Your task to perform on an android device: Add "razer blackwidow" to the cart on walmart.com, then select checkout. Image 0: 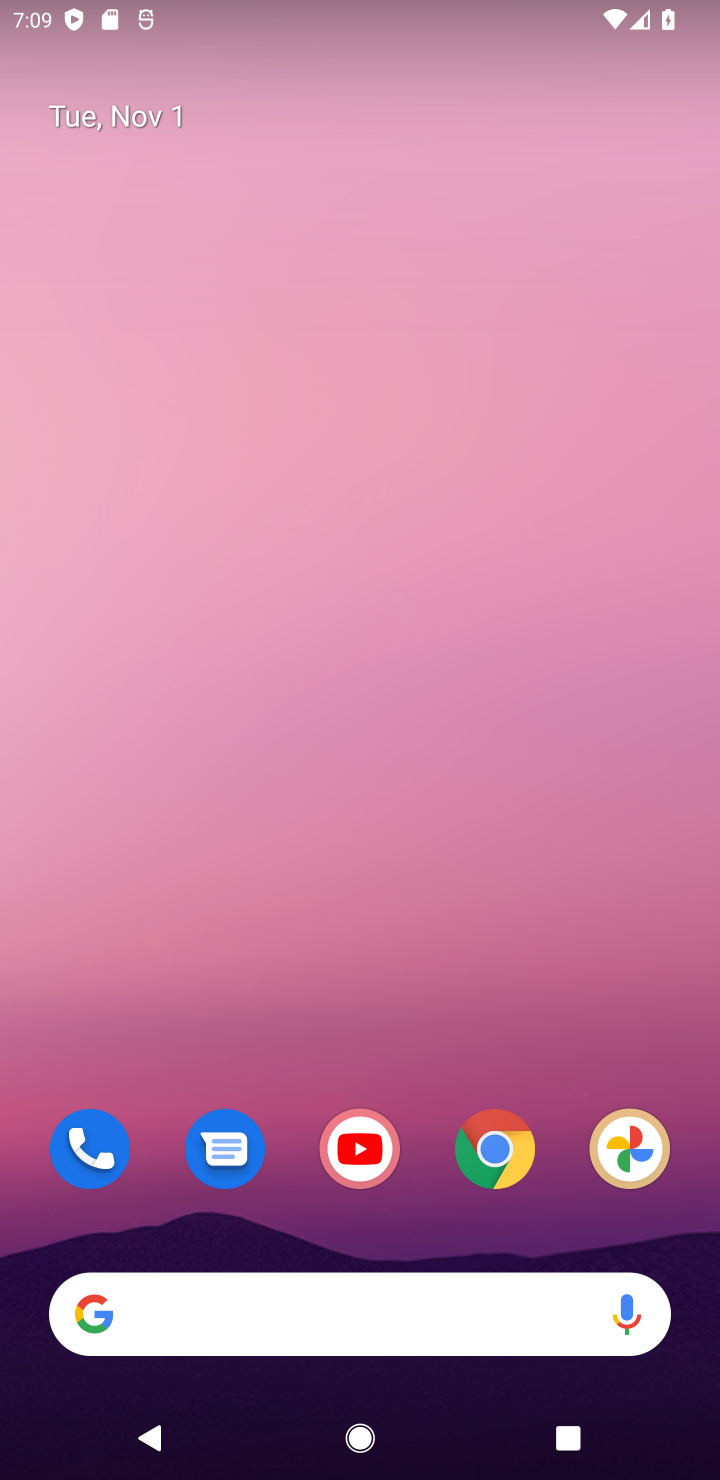
Step 0: drag from (449, 1088) to (474, 102)
Your task to perform on an android device: Add "razer blackwidow" to the cart on walmart.com, then select checkout. Image 1: 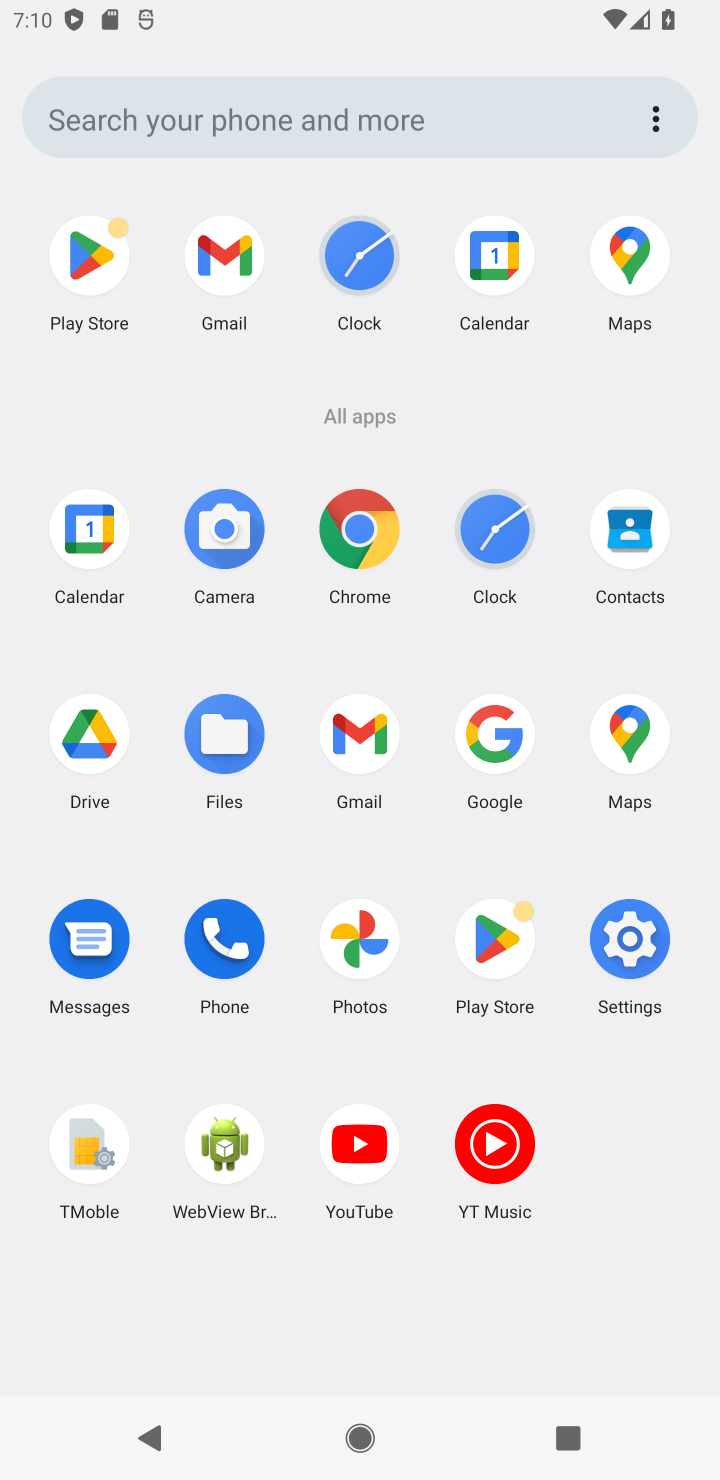
Step 1: click (351, 533)
Your task to perform on an android device: Add "razer blackwidow" to the cart on walmart.com, then select checkout. Image 2: 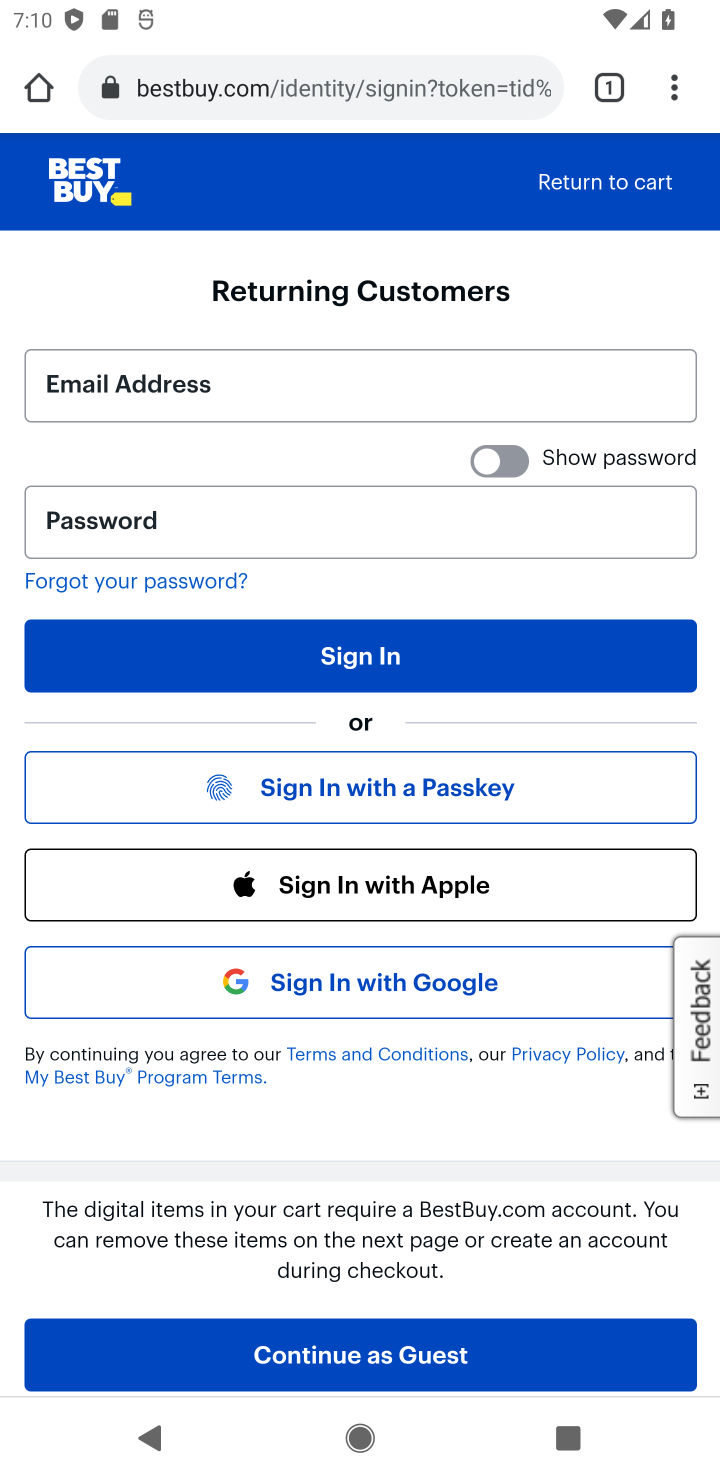
Step 2: click (336, 87)
Your task to perform on an android device: Add "razer blackwidow" to the cart on walmart.com, then select checkout. Image 3: 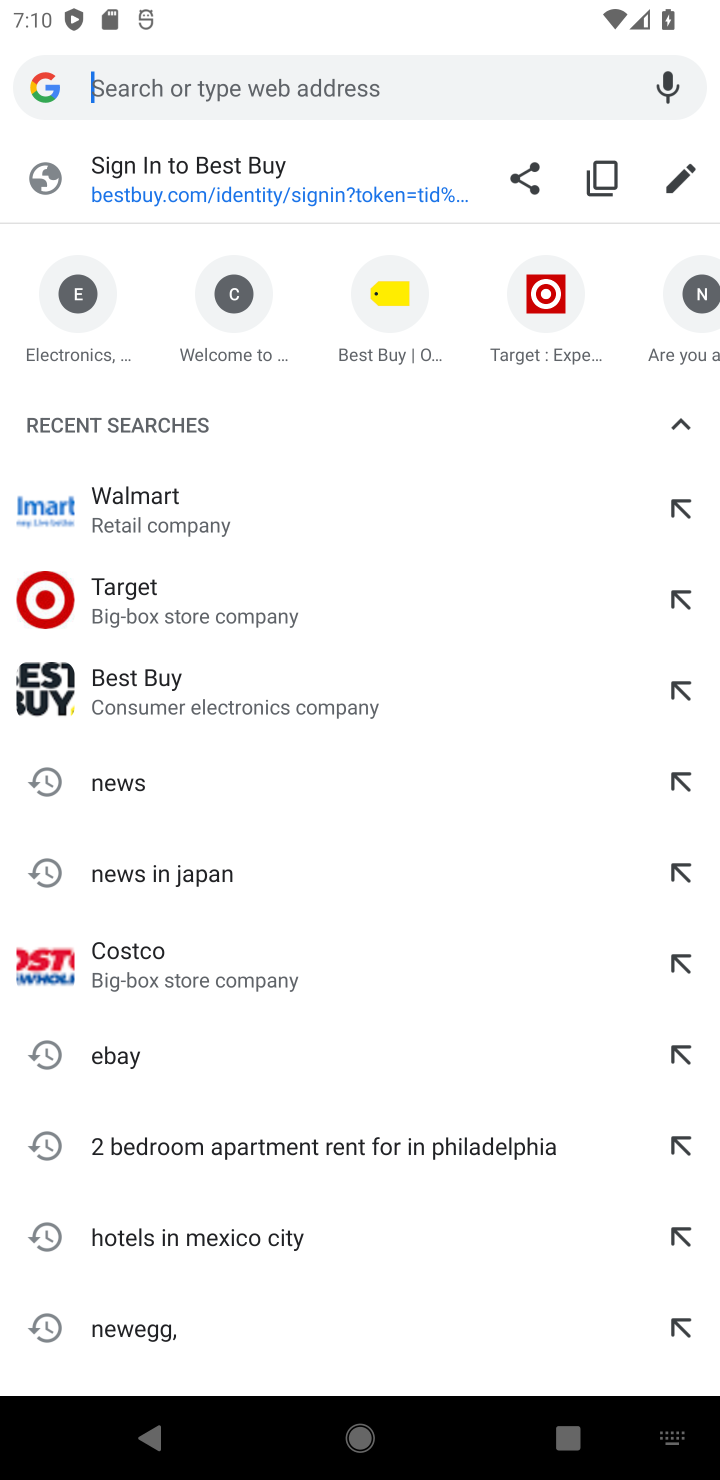
Step 3: type "walmart.com"
Your task to perform on an android device: Add "razer blackwidow" to the cart on walmart.com, then select checkout. Image 4: 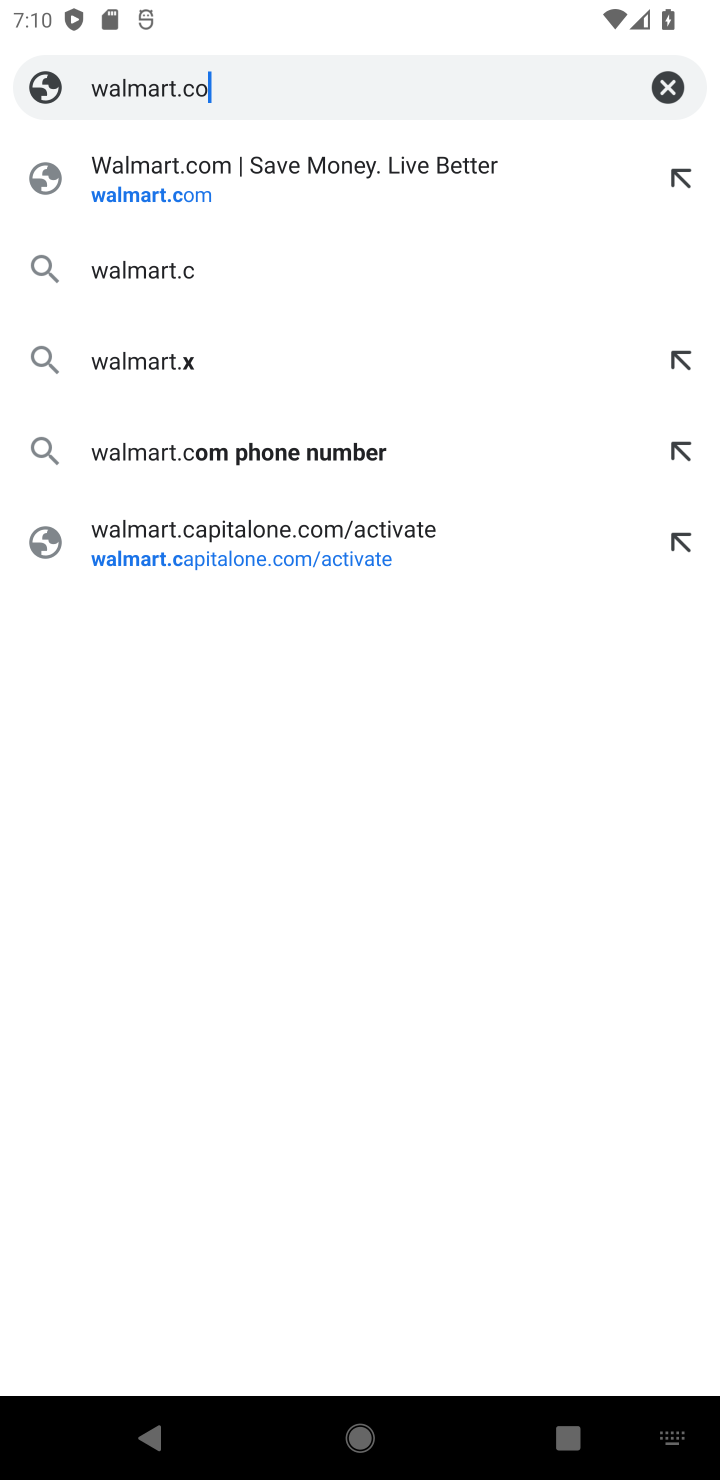
Step 4: press enter
Your task to perform on an android device: Add "razer blackwidow" to the cart on walmart.com, then select checkout. Image 5: 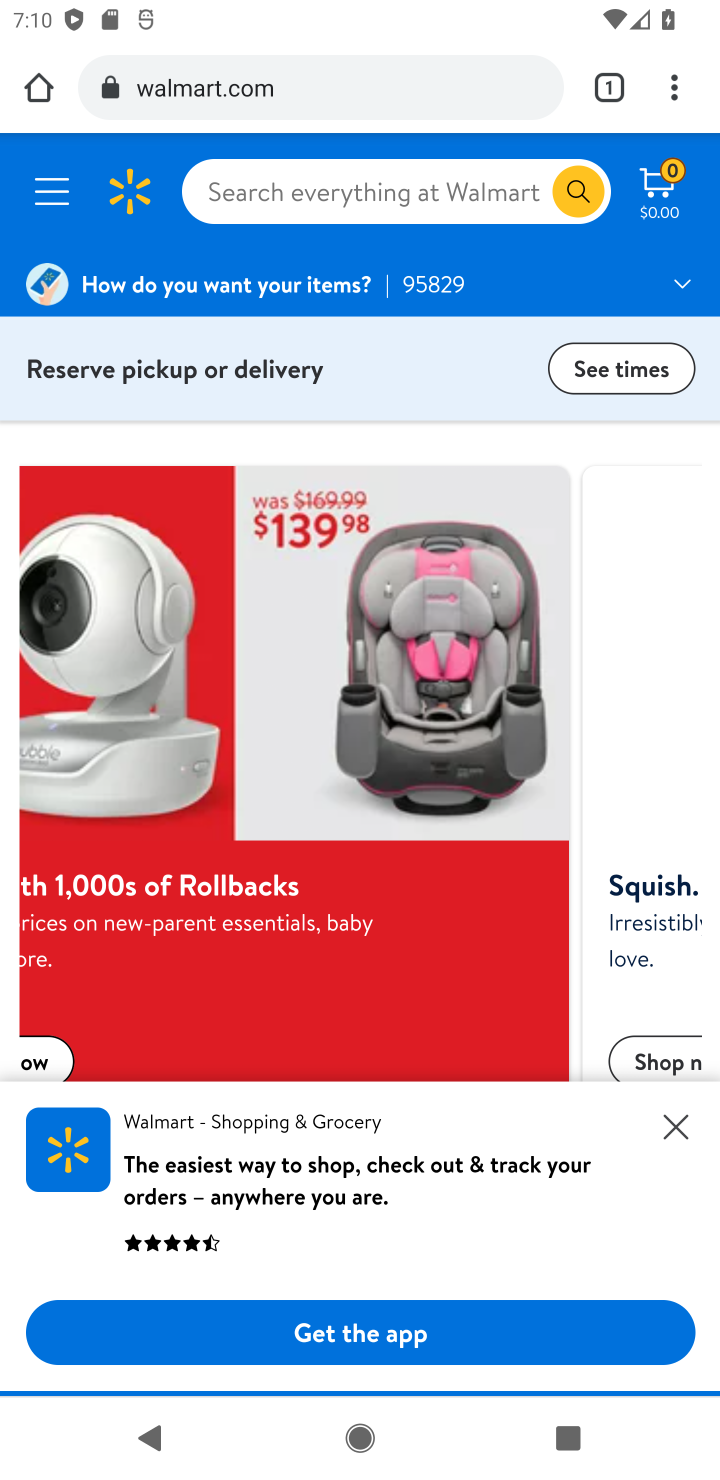
Step 5: click (375, 192)
Your task to perform on an android device: Add "razer blackwidow" to the cart on walmart.com, then select checkout. Image 6: 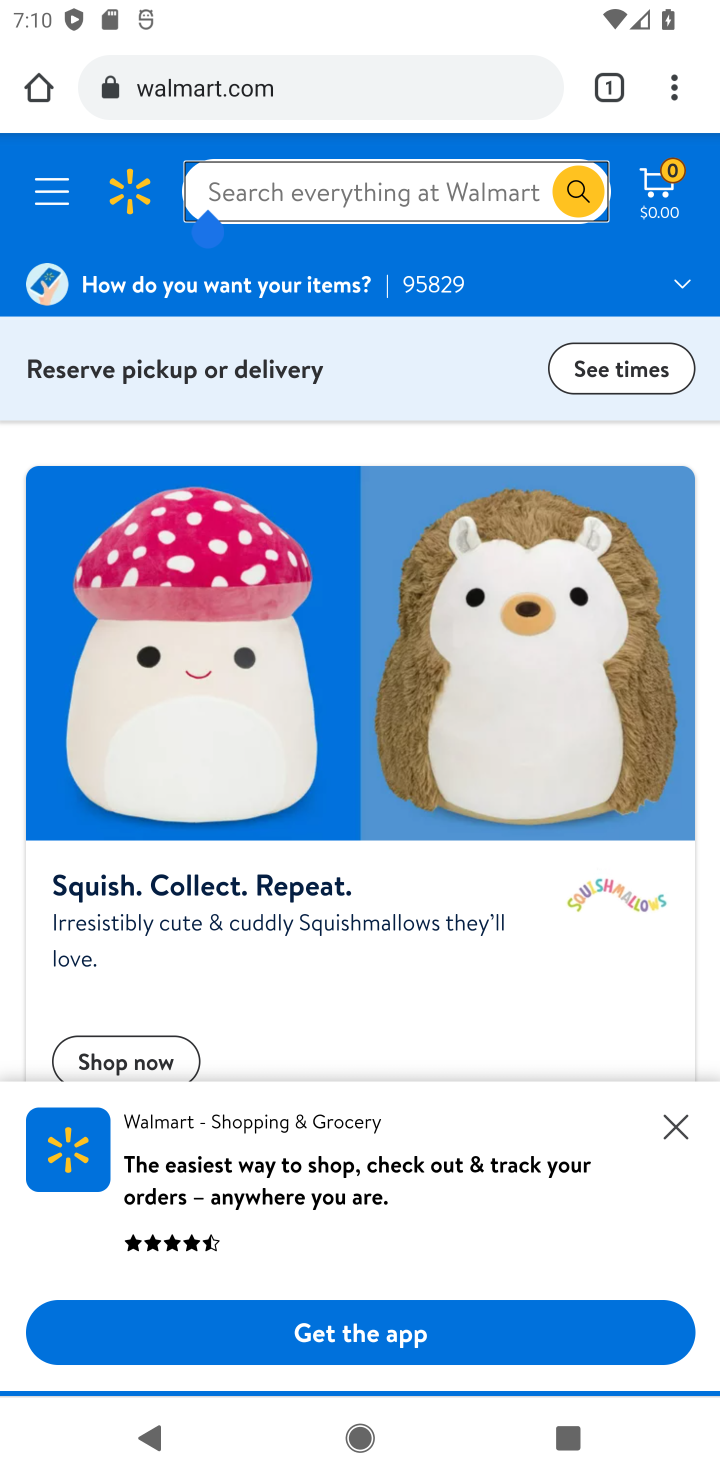
Step 6: type "razer blackwidow"
Your task to perform on an android device: Add "razer blackwidow" to the cart on walmart.com, then select checkout. Image 7: 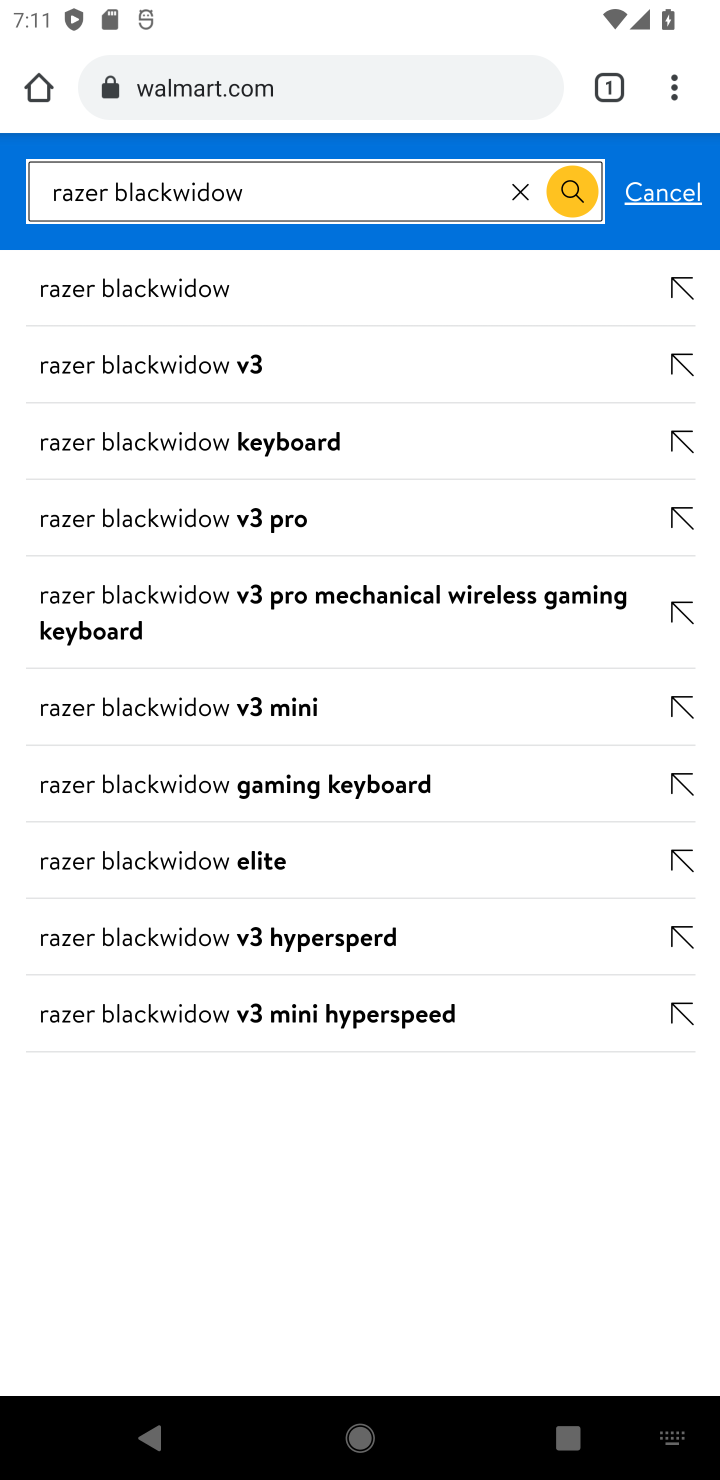
Step 7: press enter
Your task to perform on an android device: Add "razer blackwidow" to the cart on walmart.com, then select checkout. Image 8: 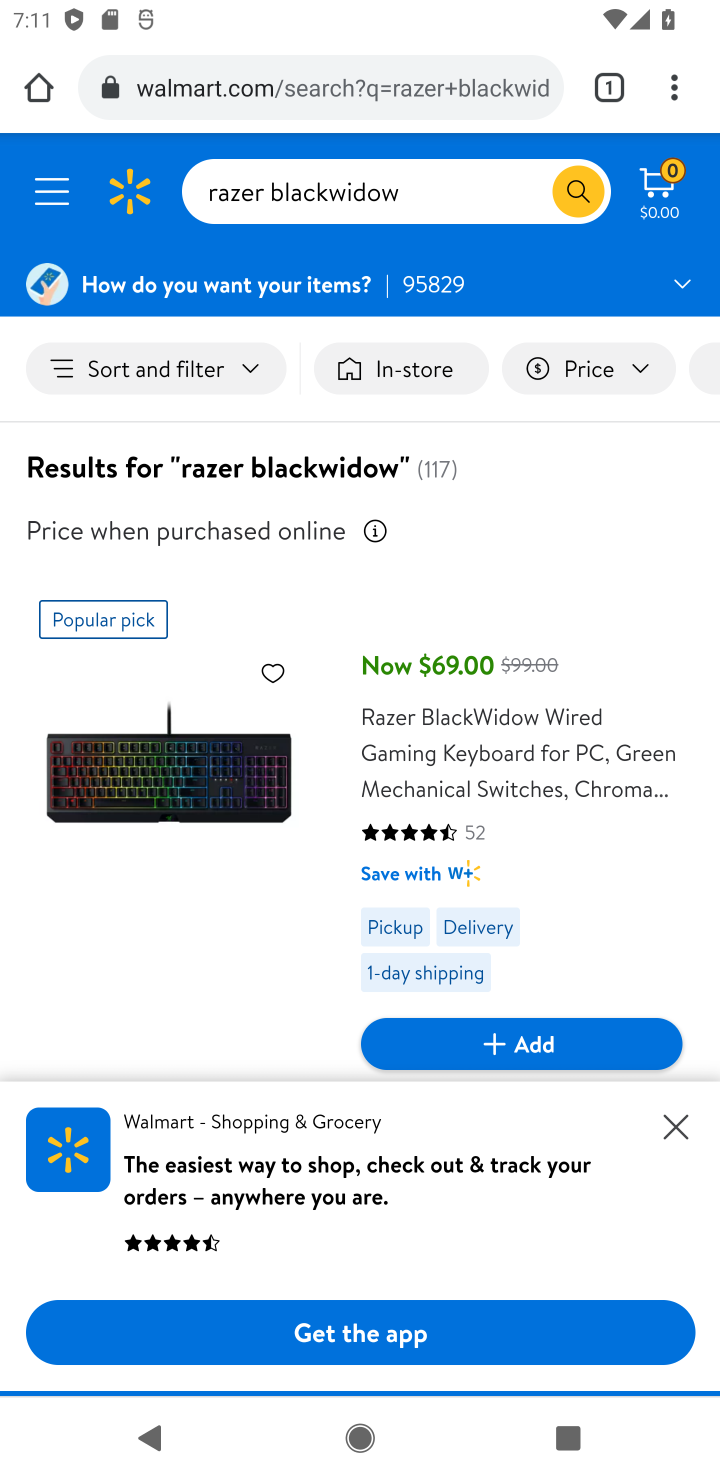
Step 8: click (578, 1064)
Your task to perform on an android device: Add "razer blackwidow" to the cart on walmart.com, then select checkout. Image 9: 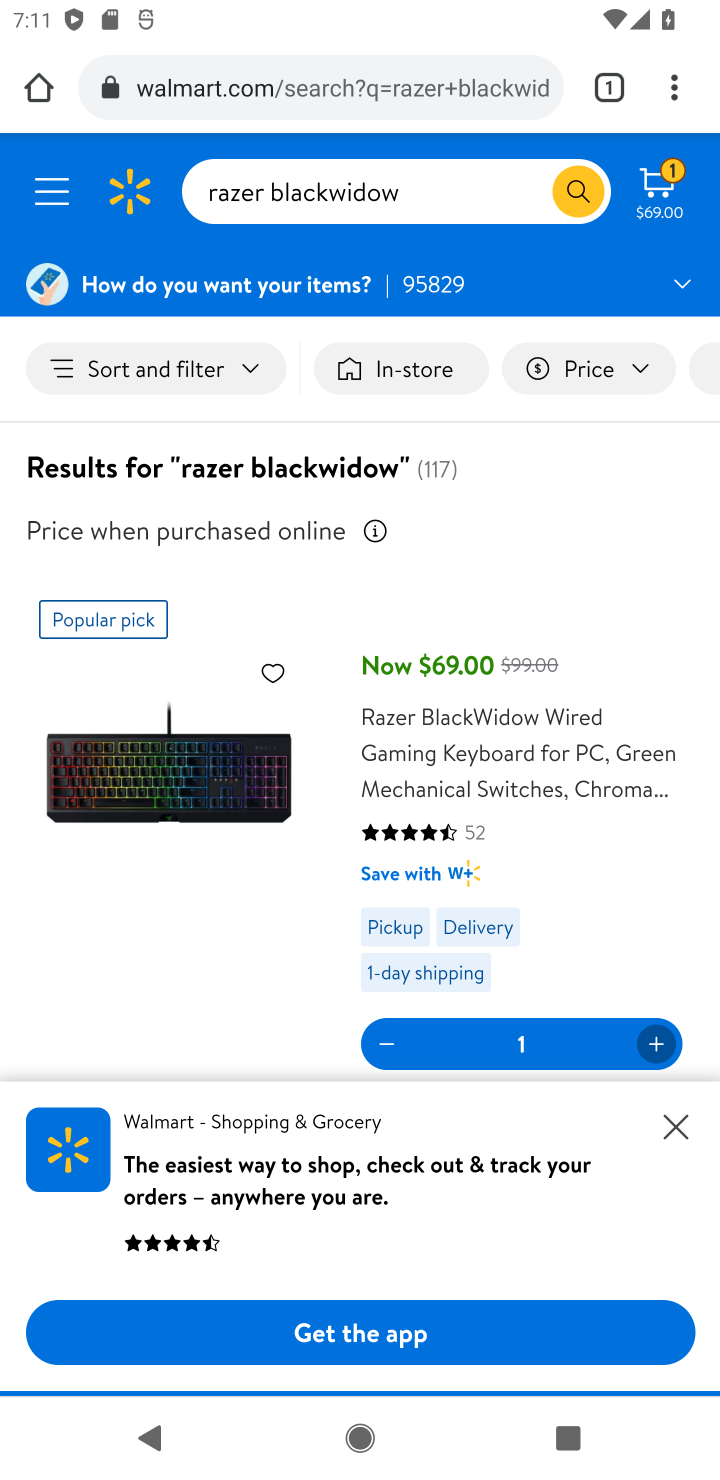
Step 9: click (678, 194)
Your task to perform on an android device: Add "razer blackwidow" to the cart on walmart.com, then select checkout. Image 10: 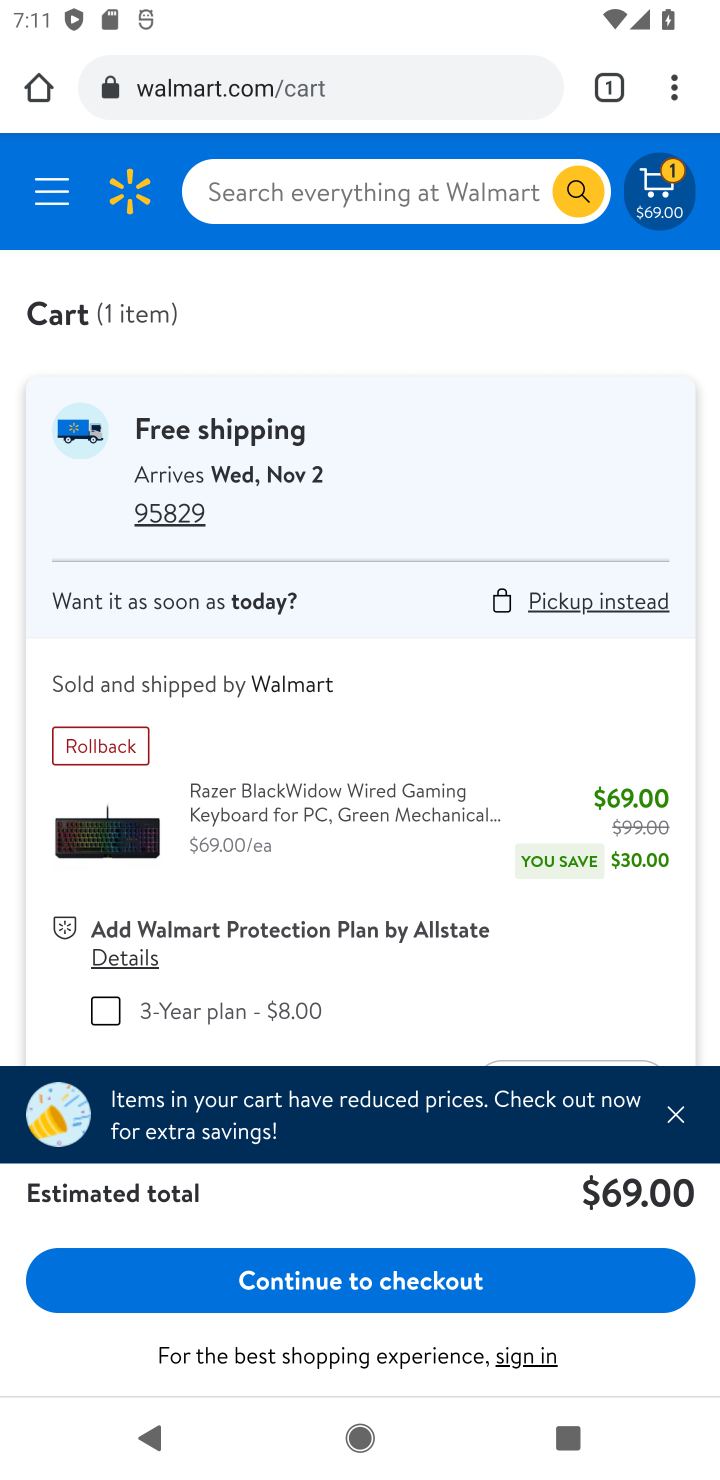
Step 10: click (462, 1285)
Your task to perform on an android device: Add "razer blackwidow" to the cart on walmart.com, then select checkout. Image 11: 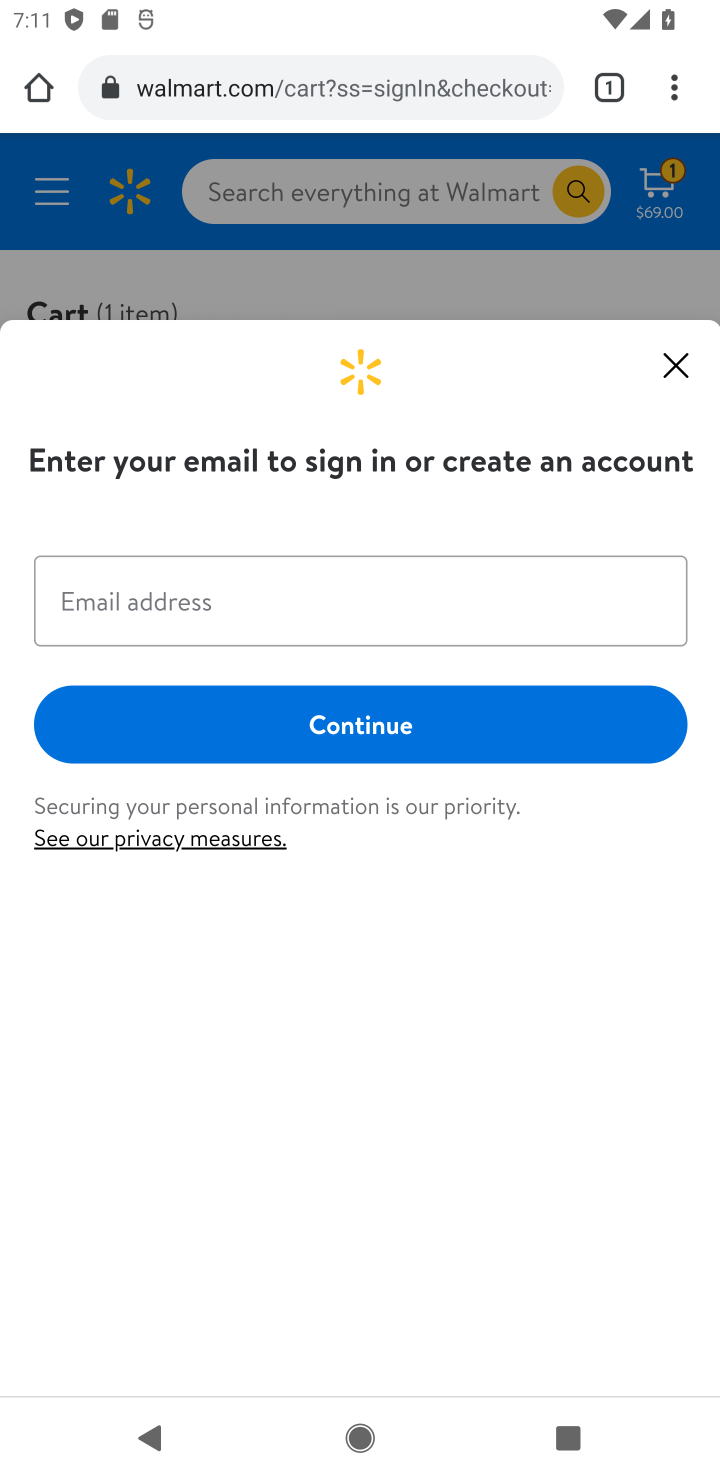
Step 11: task complete